Your task to perform on an android device: Turn off the flashlight Image 0: 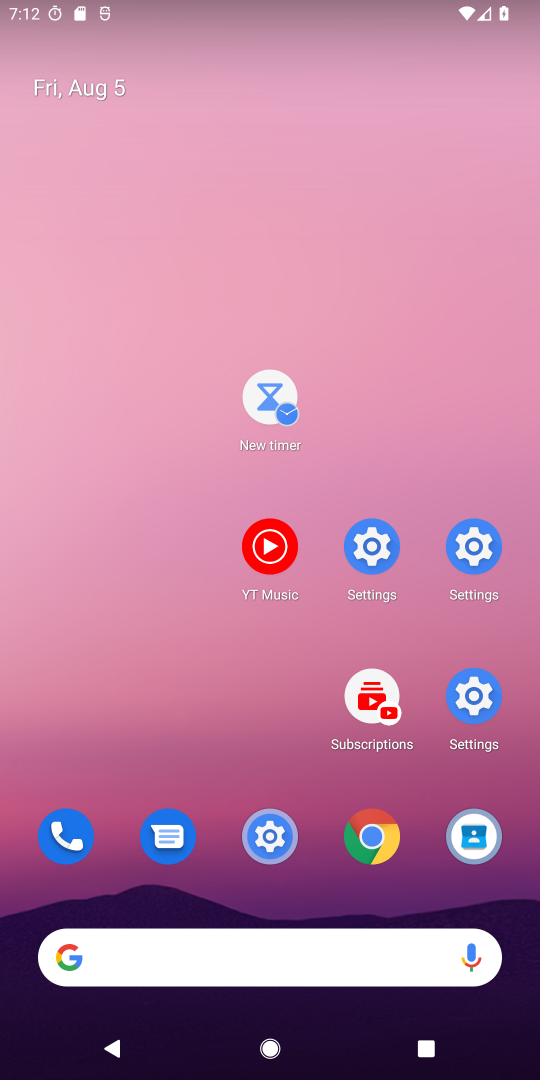
Step 0: drag from (339, 704) to (241, 325)
Your task to perform on an android device: Turn off the flashlight Image 1: 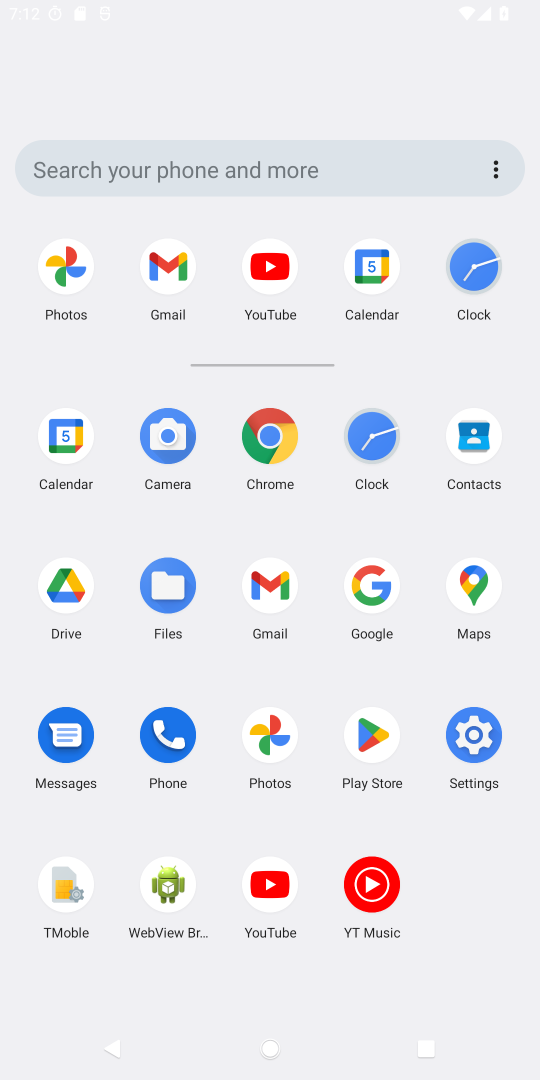
Step 1: drag from (325, 916) to (217, 181)
Your task to perform on an android device: Turn off the flashlight Image 2: 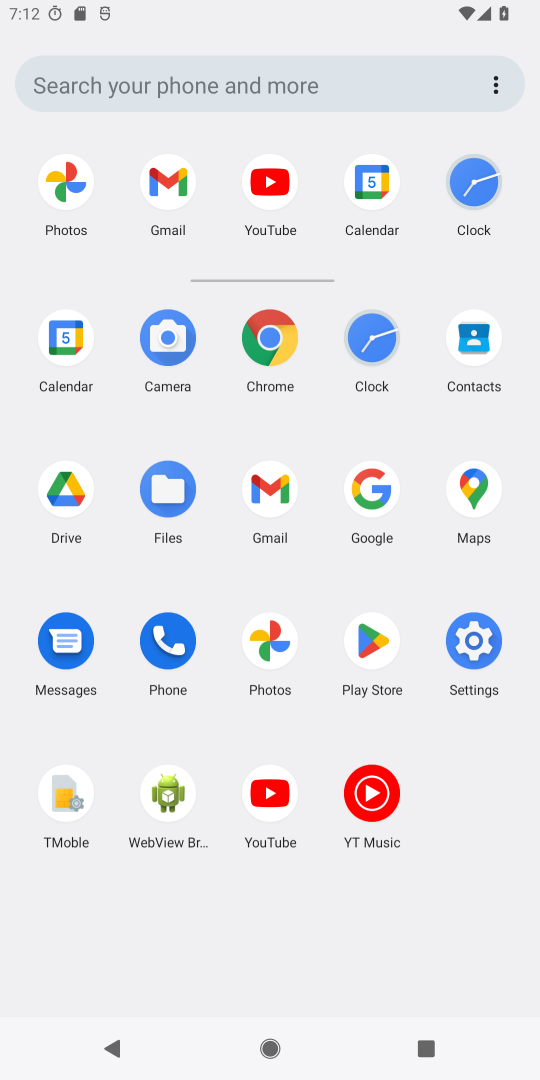
Step 2: drag from (268, 743) to (260, 156)
Your task to perform on an android device: Turn off the flashlight Image 3: 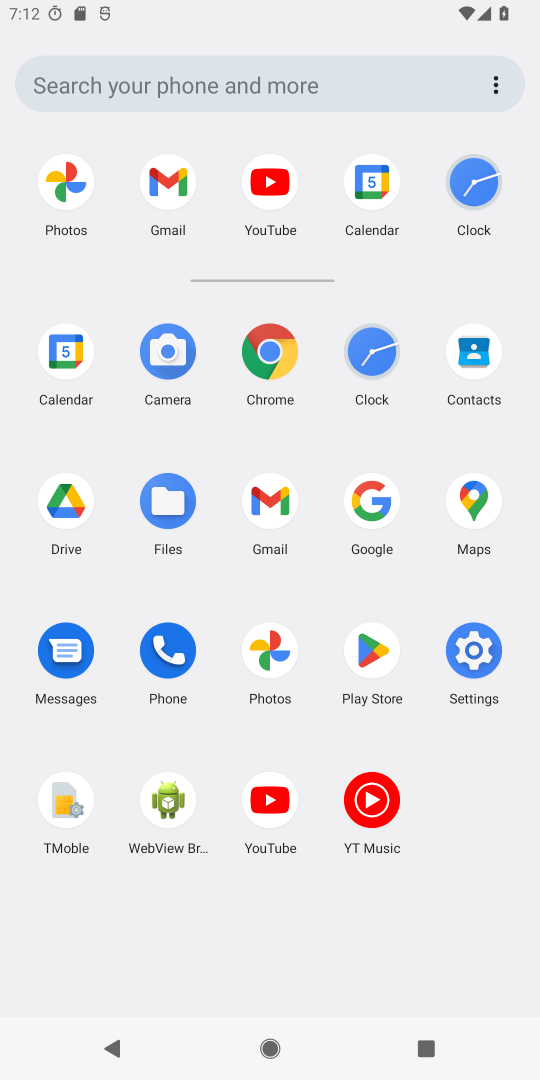
Step 3: drag from (288, 664) to (262, 506)
Your task to perform on an android device: Turn off the flashlight Image 4: 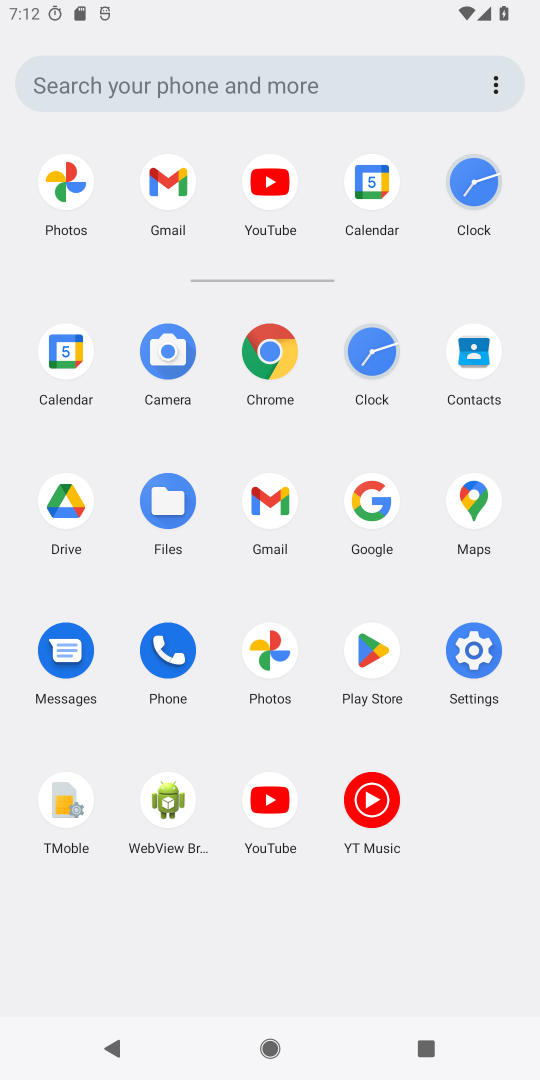
Step 4: drag from (252, 641) to (202, 333)
Your task to perform on an android device: Turn off the flashlight Image 5: 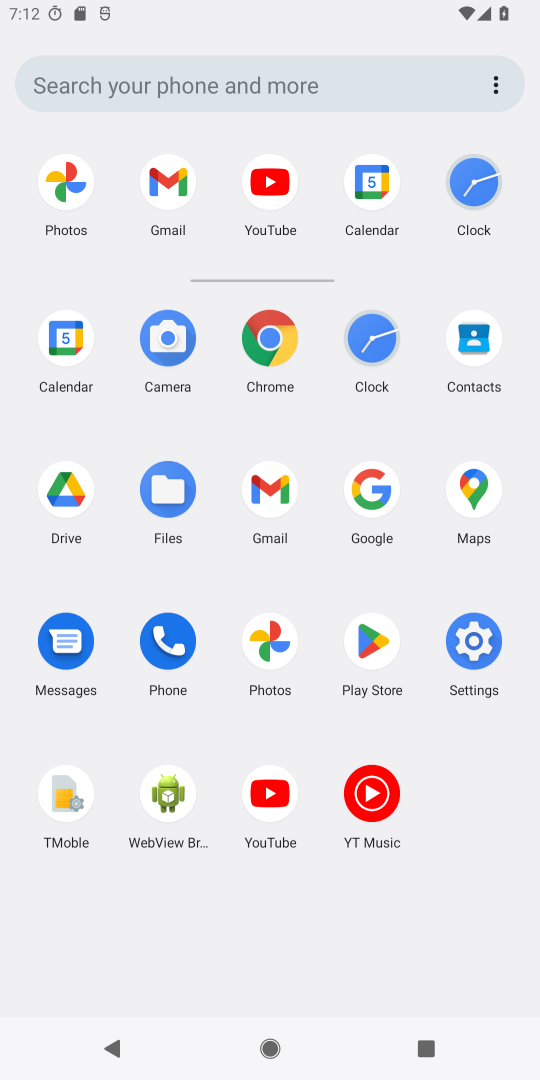
Step 5: drag from (233, 589) to (197, 348)
Your task to perform on an android device: Turn off the flashlight Image 6: 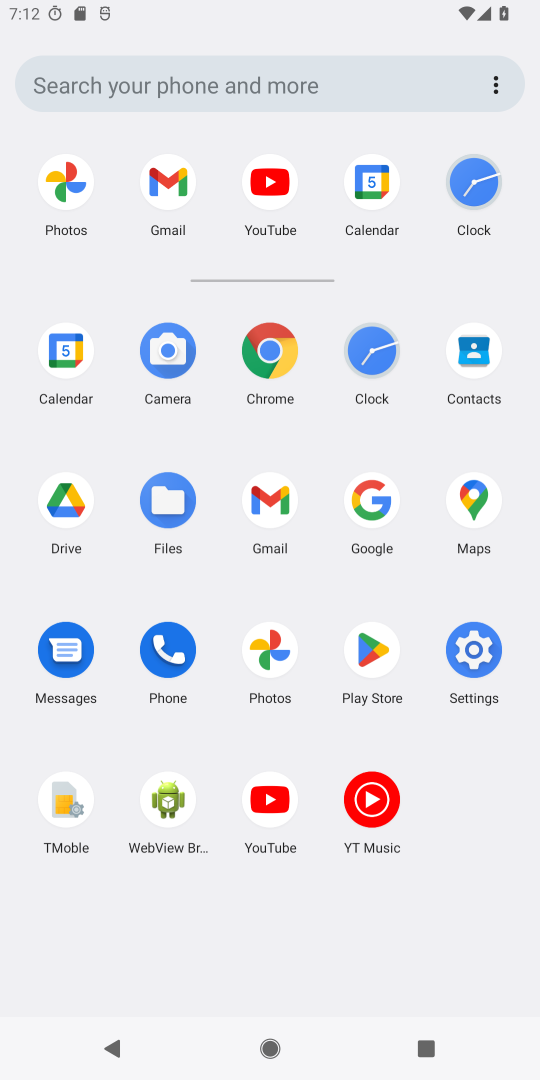
Step 6: drag from (219, 598) to (225, 316)
Your task to perform on an android device: Turn off the flashlight Image 7: 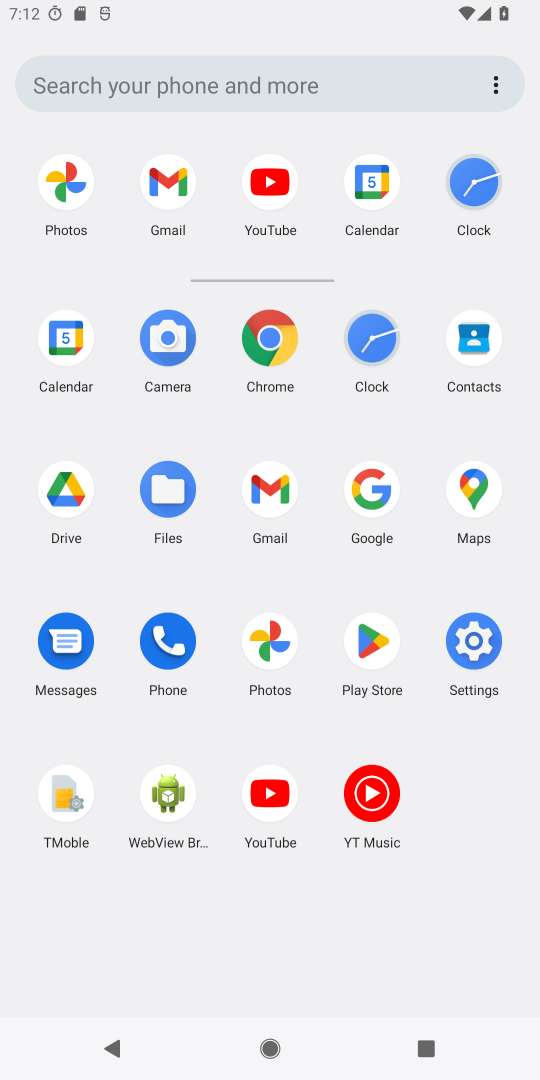
Step 7: drag from (328, 516) to (346, 301)
Your task to perform on an android device: Turn off the flashlight Image 8: 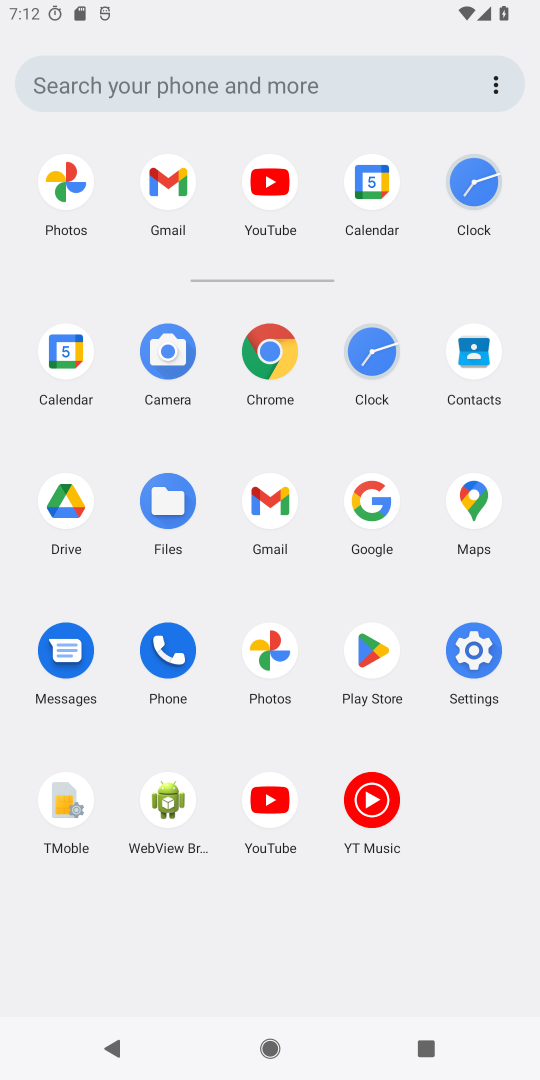
Step 8: drag from (267, 566) to (220, 245)
Your task to perform on an android device: Turn off the flashlight Image 9: 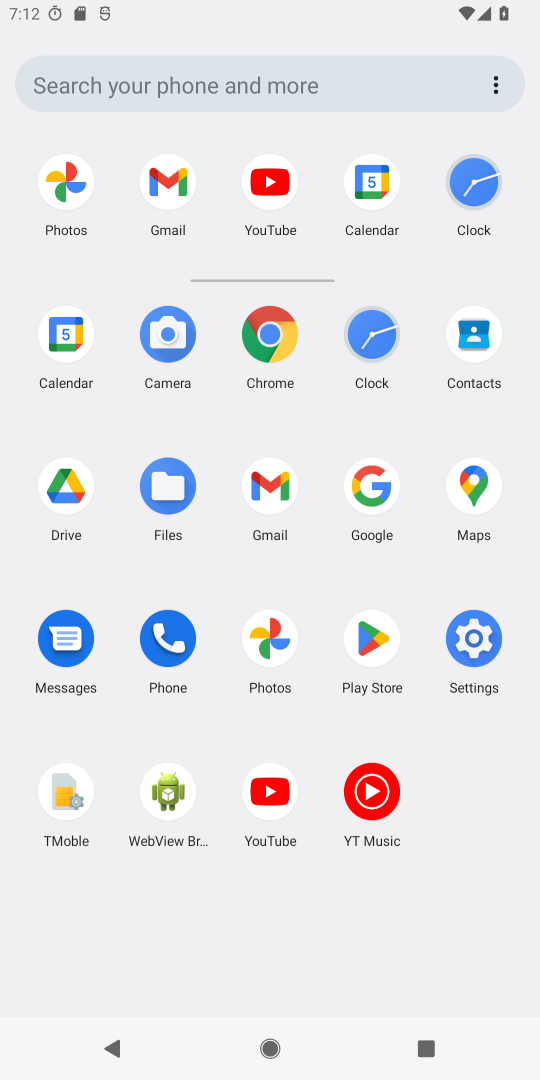
Step 9: click (222, 414)
Your task to perform on an android device: Turn off the flashlight Image 10: 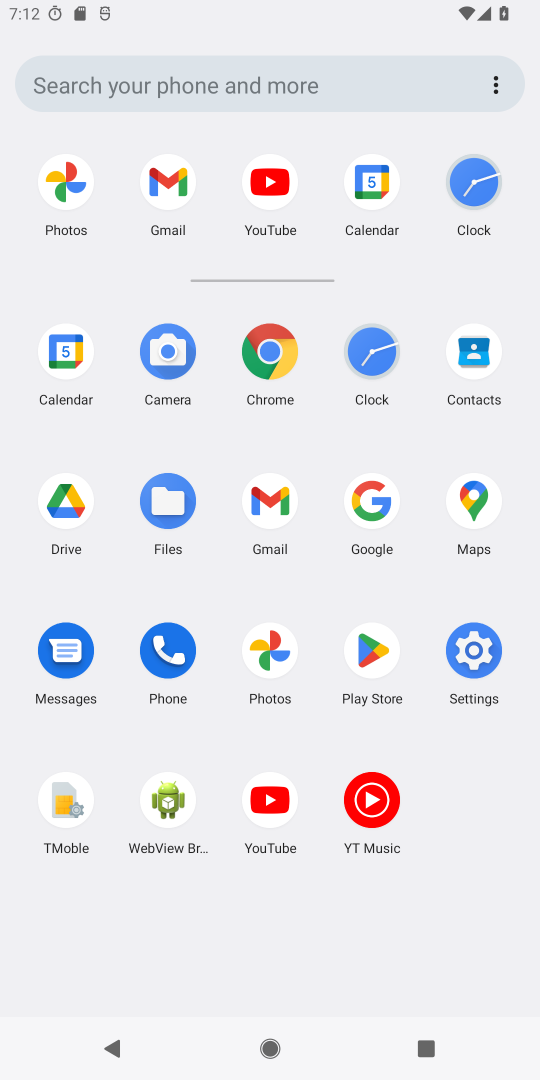
Step 10: task complete